Your task to perform on an android device: Search for vegetarian restaurants on Maps Image 0: 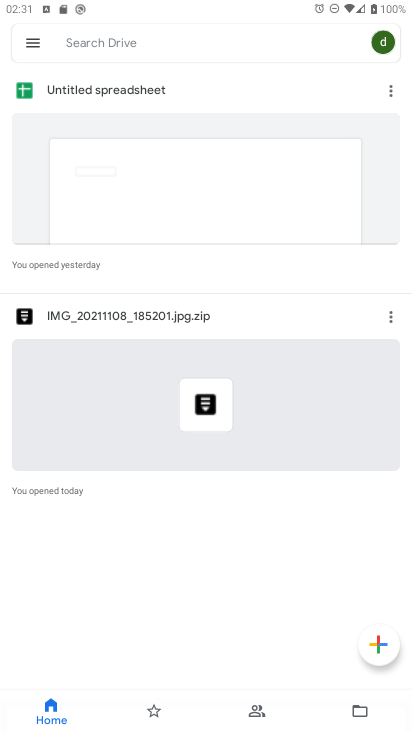
Step 0: press home button
Your task to perform on an android device: Search for vegetarian restaurants on Maps Image 1: 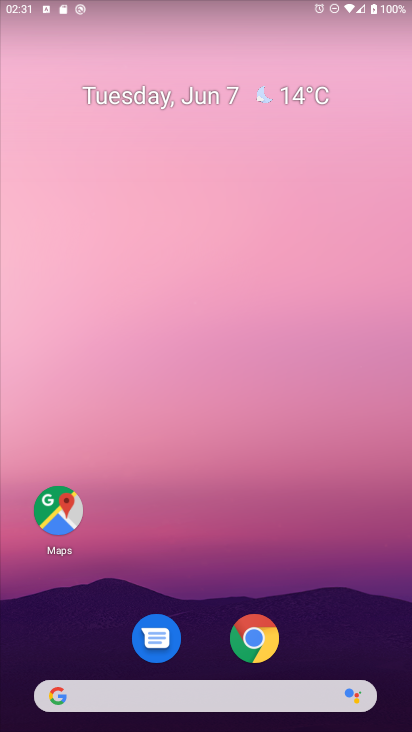
Step 1: drag from (213, 696) to (234, 111)
Your task to perform on an android device: Search for vegetarian restaurants on Maps Image 2: 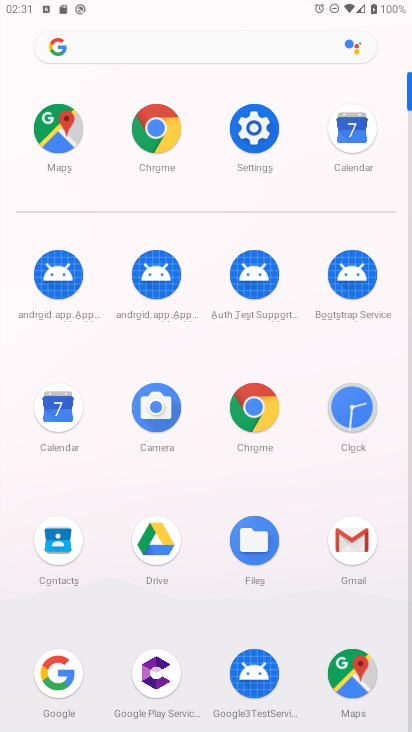
Step 2: click (75, 138)
Your task to perform on an android device: Search for vegetarian restaurants on Maps Image 3: 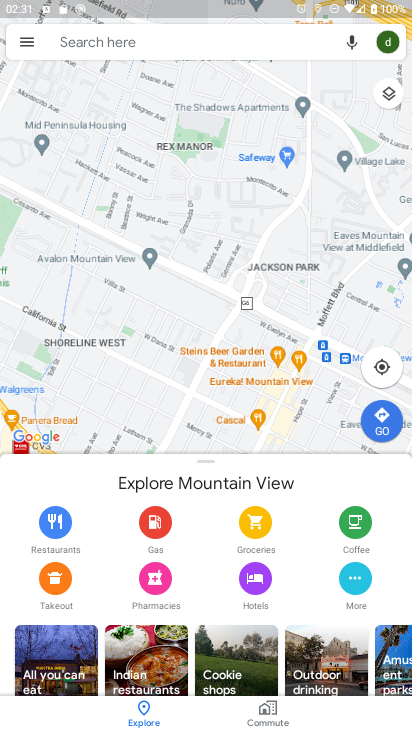
Step 3: click (154, 36)
Your task to perform on an android device: Search for vegetarian restaurants on Maps Image 4: 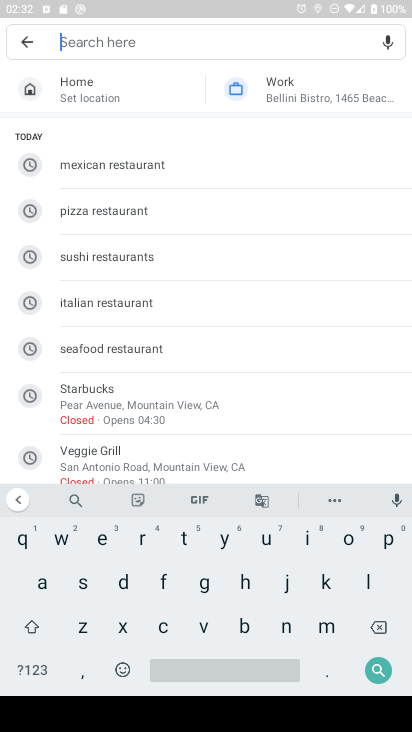
Step 4: click (199, 629)
Your task to perform on an android device: Search for vegetarian restaurants on Maps Image 5: 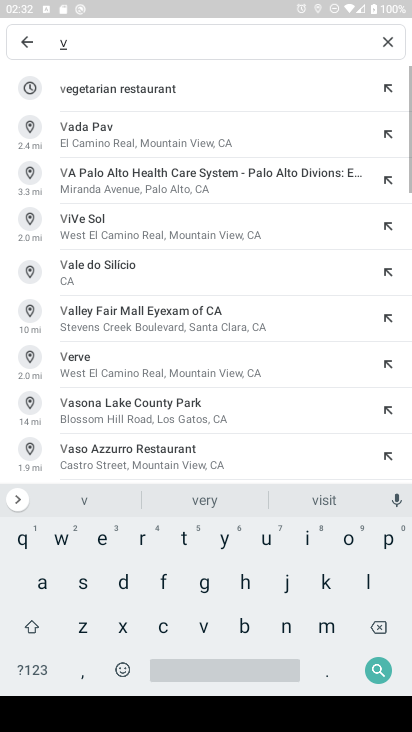
Step 5: click (124, 99)
Your task to perform on an android device: Search for vegetarian restaurants on Maps Image 6: 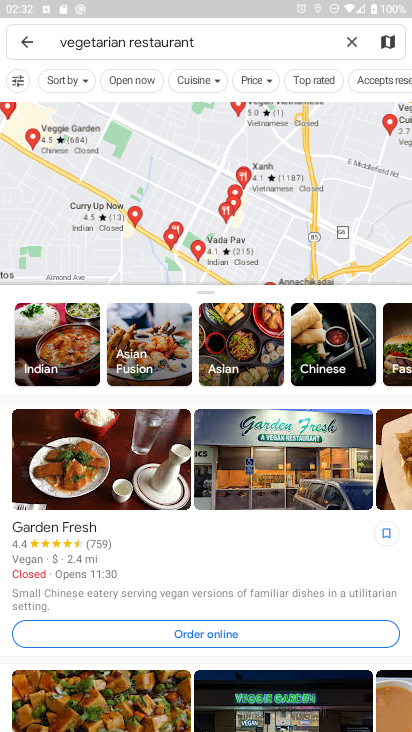
Step 6: task complete